Your task to perform on an android device: toggle pop-ups in chrome Image 0: 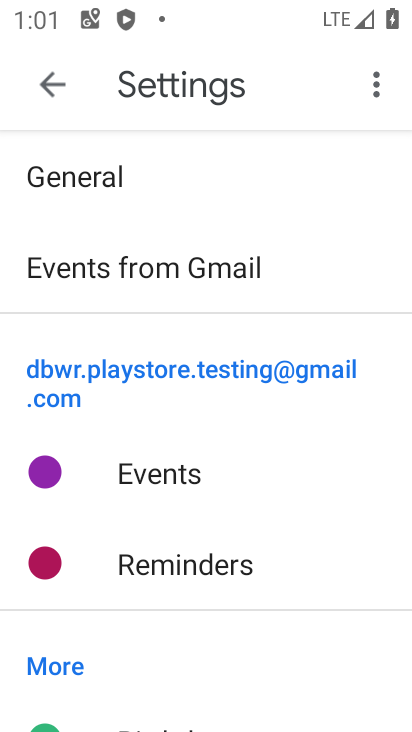
Step 0: press home button
Your task to perform on an android device: toggle pop-ups in chrome Image 1: 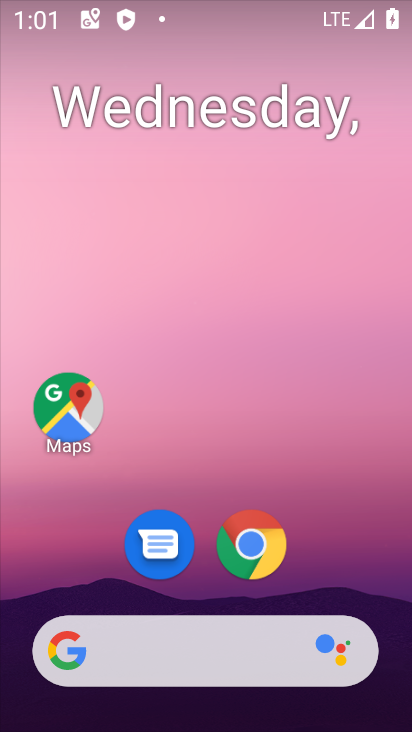
Step 1: drag from (403, 651) to (323, 78)
Your task to perform on an android device: toggle pop-ups in chrome Image 2: 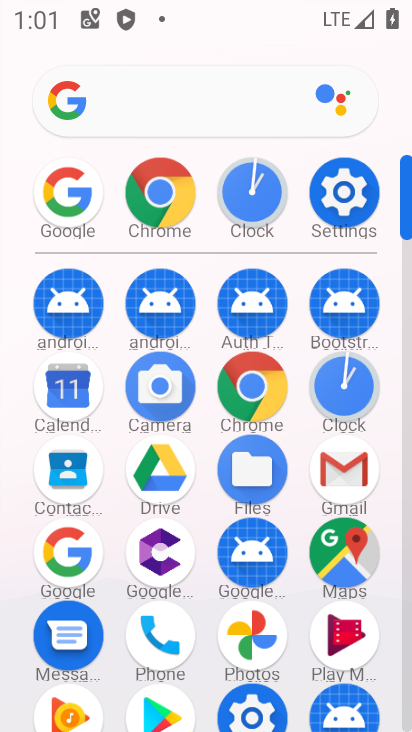
Step 2: click (154, 205)
Your task to perform on an android device: toggle pop-ups in chrome Image 3: 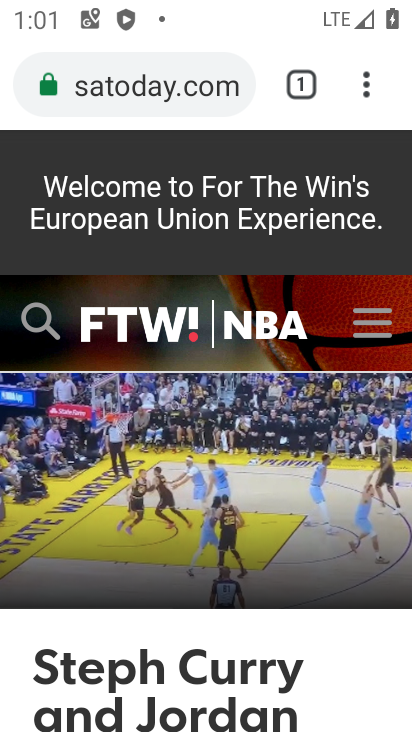
Step 3: press back button
Your task to perform on an android device: toggle pop-ups in chrome Image 4: 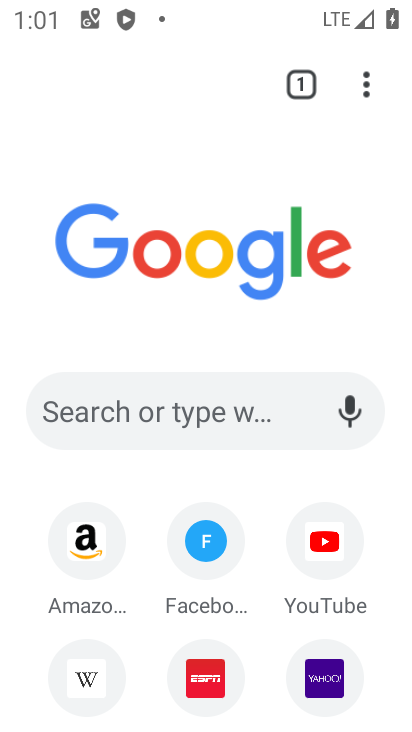
Step 4: click (369, 82)
Your task to perform on an android device: toggle pop-ups in chrome Image 5: 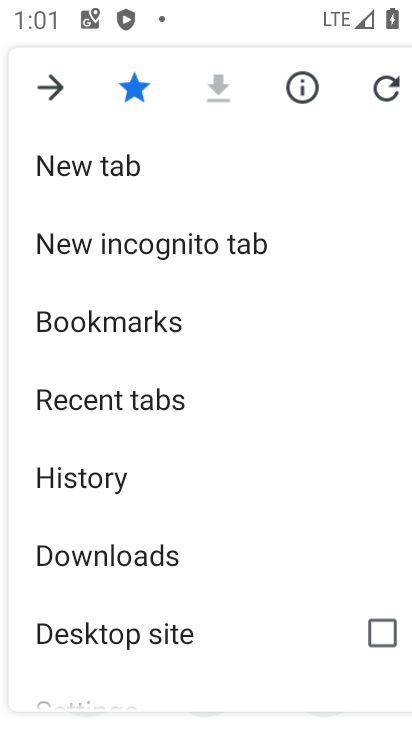
Step 5: drag from (204, 590) to (247, 226)
Your task to perform on an android device: toggle pop-ups in chrome Image 6: 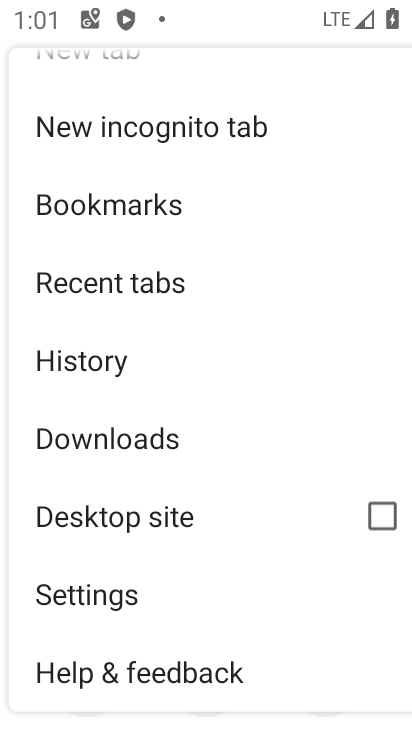
Step 6: click (157, 588)
Your task to perform on an android device: toggle pop-ups in chrome Image 7: 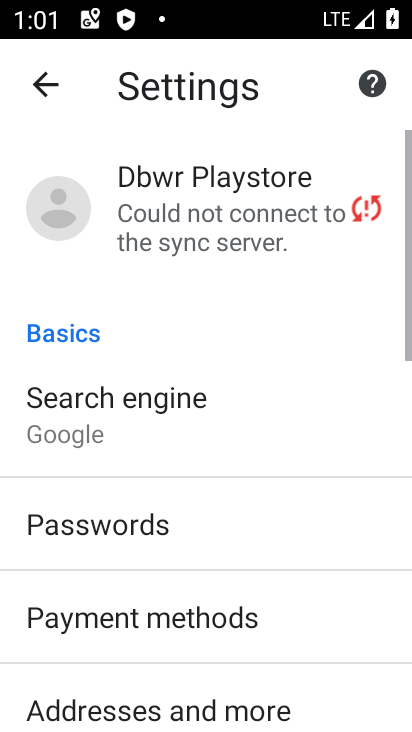
Step 7: drag from (157, 588) to (193, 94)
Your task to perform on an android device: toggle pop-ups in chrome Image 8: 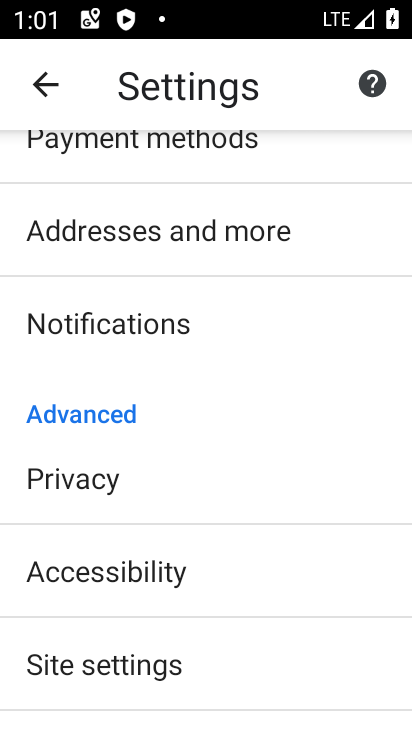
Step 8: click (141, 656)
Your task to perform on an android device: toggle pop-ups in chrome Image 9: 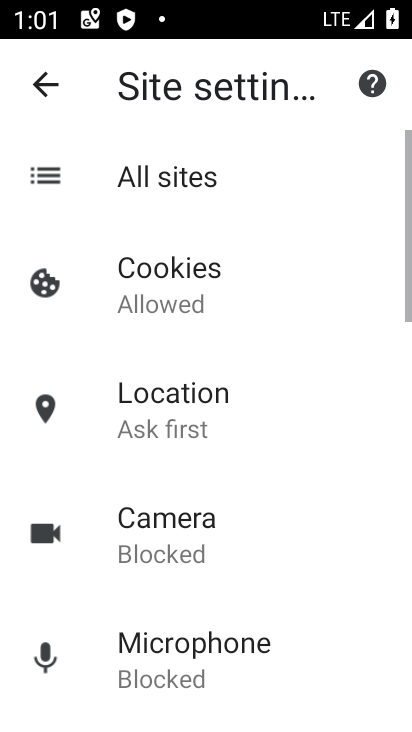
Step 9: drag from (146, 633) to (195, 173)
Your task to perform on an android device: toggle pop-ups in chrome Image 10: 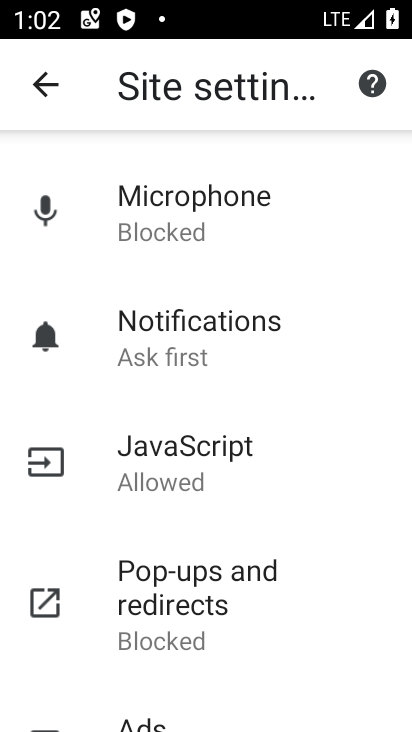
Step 10: click (211, 615)
Your task to perform on an android device: toggle pop-ups in chrome Image 11: 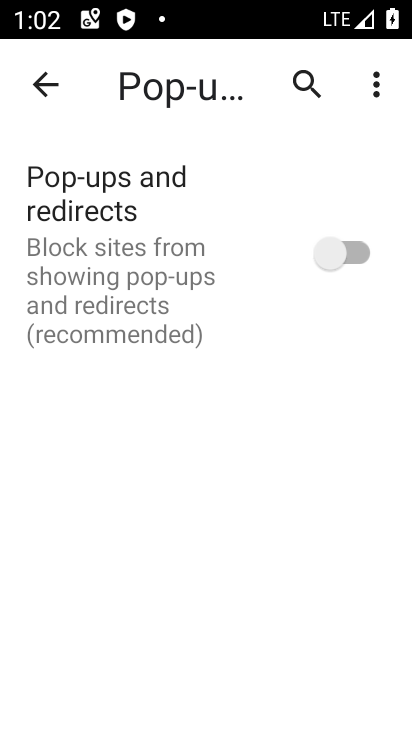
Step 11: click (312, 257)
Your task to perform on an android device: toggle pop-ups in chrome Image 12: 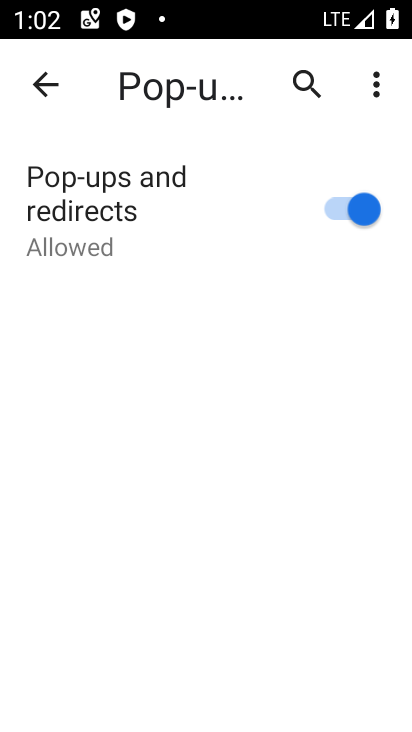
Step 12: task complete